Your task to perform on an android device: Look up the best selling books on Goodreads. Image 0: 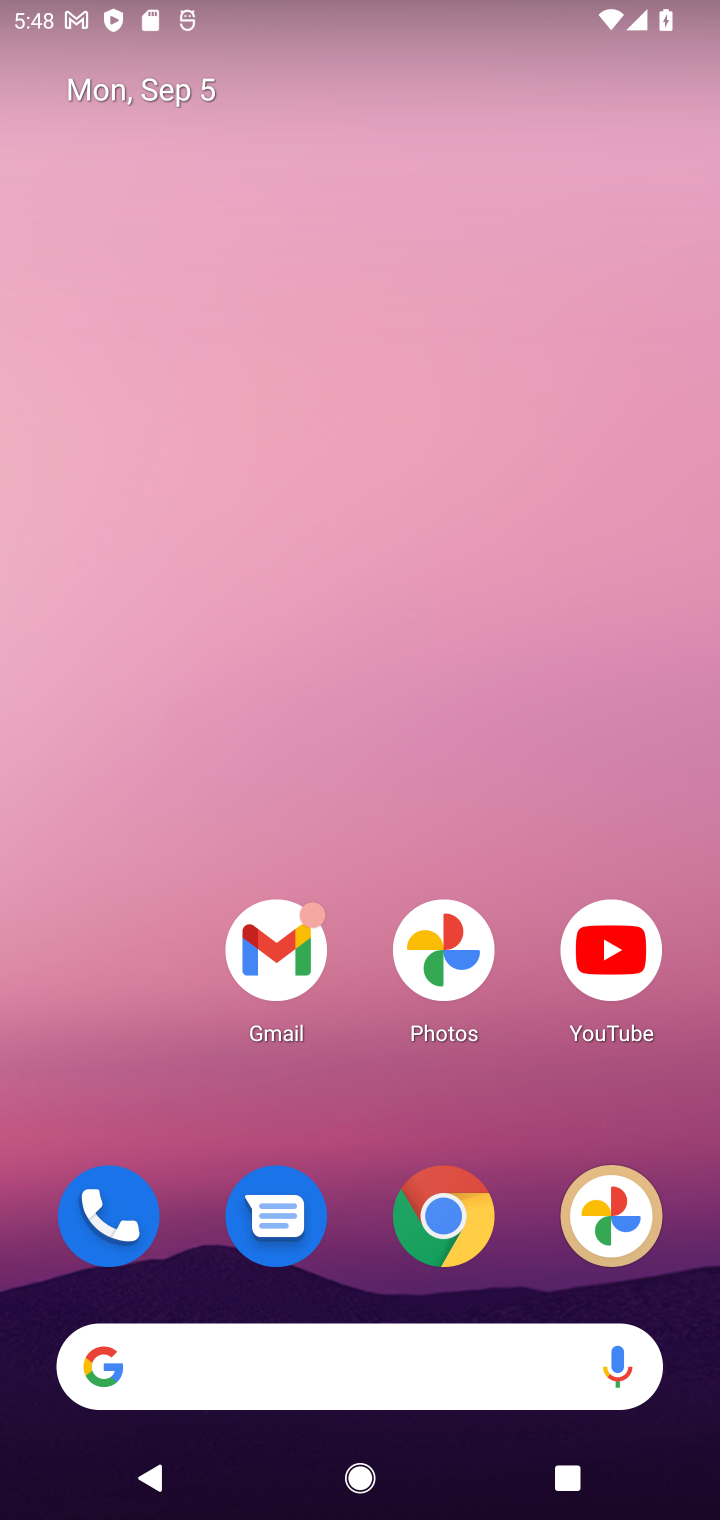
Step 0: click (435, 1217)
Your task to perform on an android device: Look up the best selling books on Goodreads. Image 1: 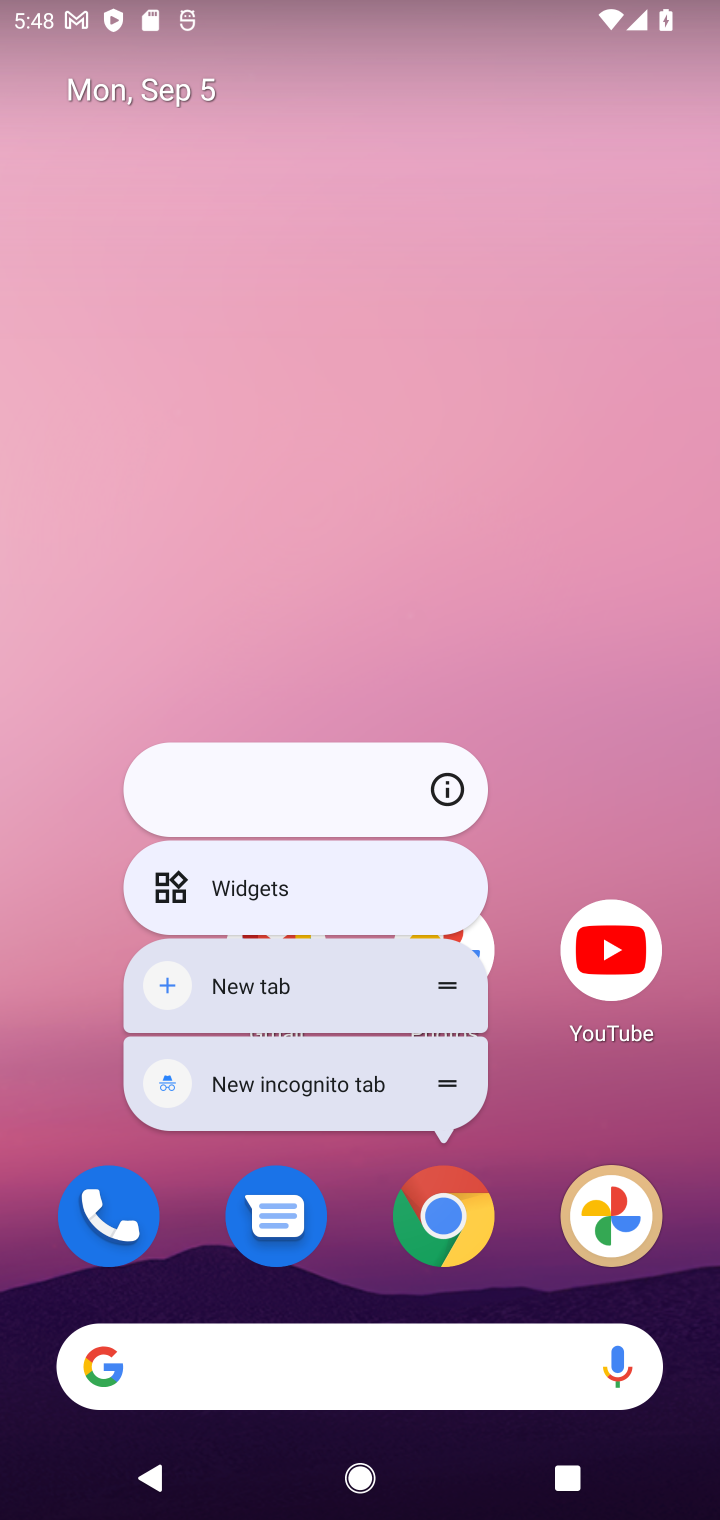
Step 1: click (435, 1217)
Your task to perform on an android device: Look up the best selling books on Goodreads. Image 2: 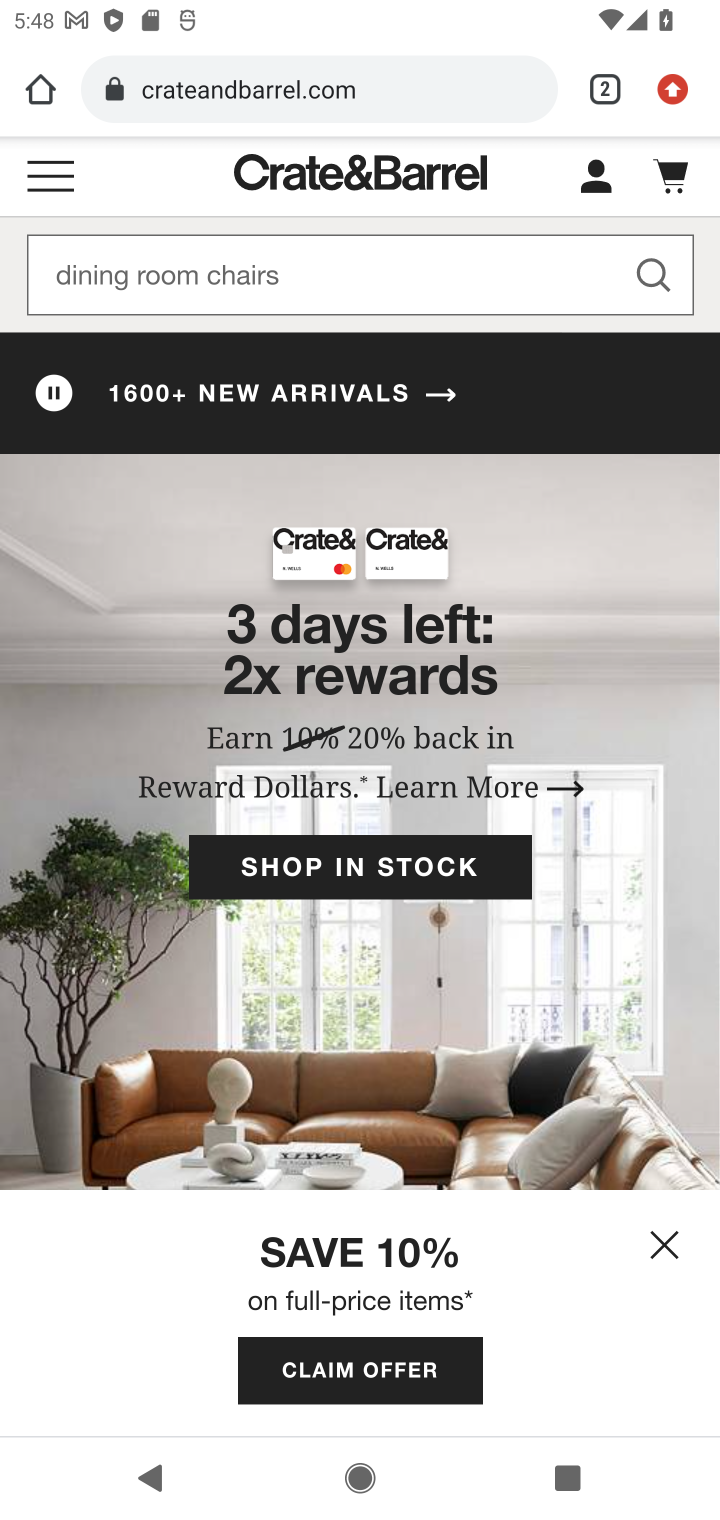
Step 2: click (289, 87)
Your task to perform on an android device: Look up the best selling books on Goodreads. Image 3: 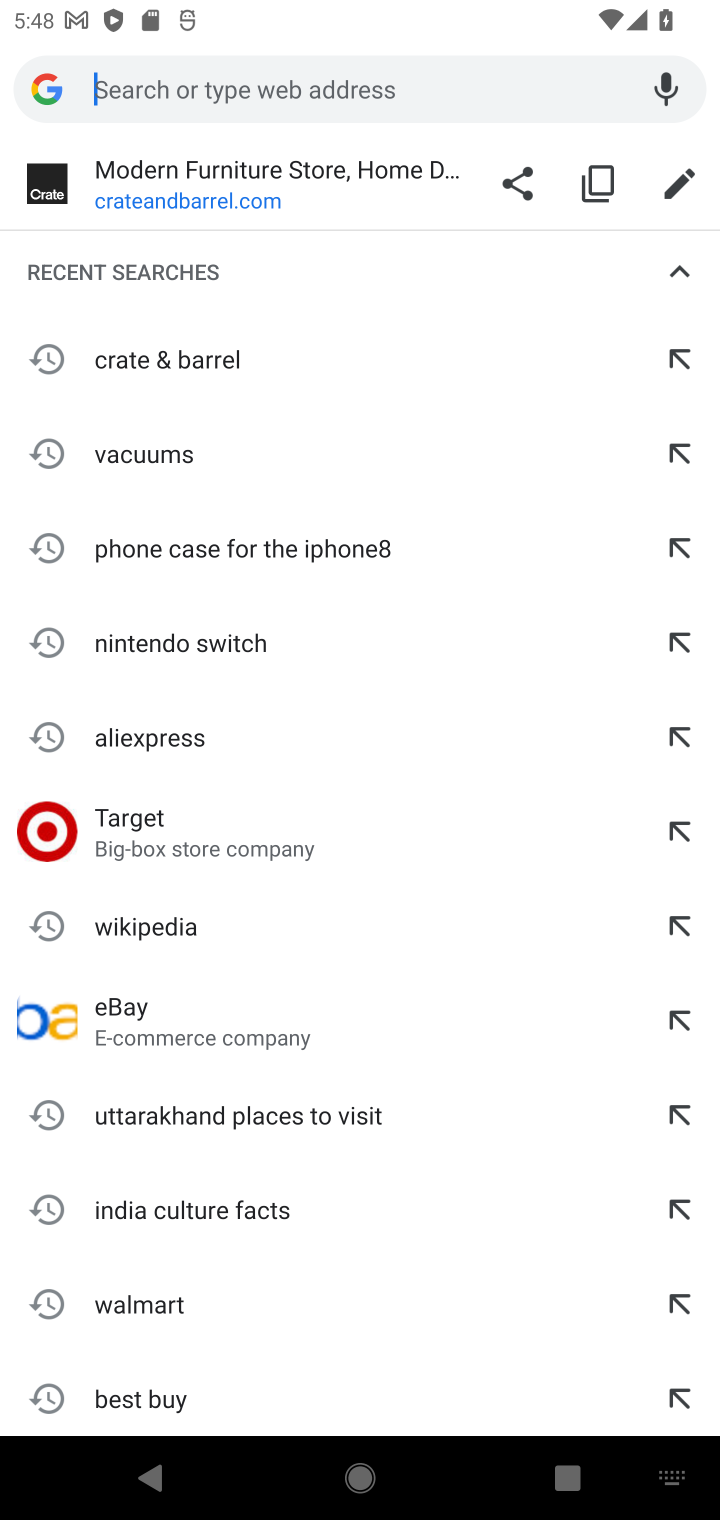
Step 3: type "goodreads"
Your task to perform on an android device: Look up the best selling books on Goodreads. Image 4: 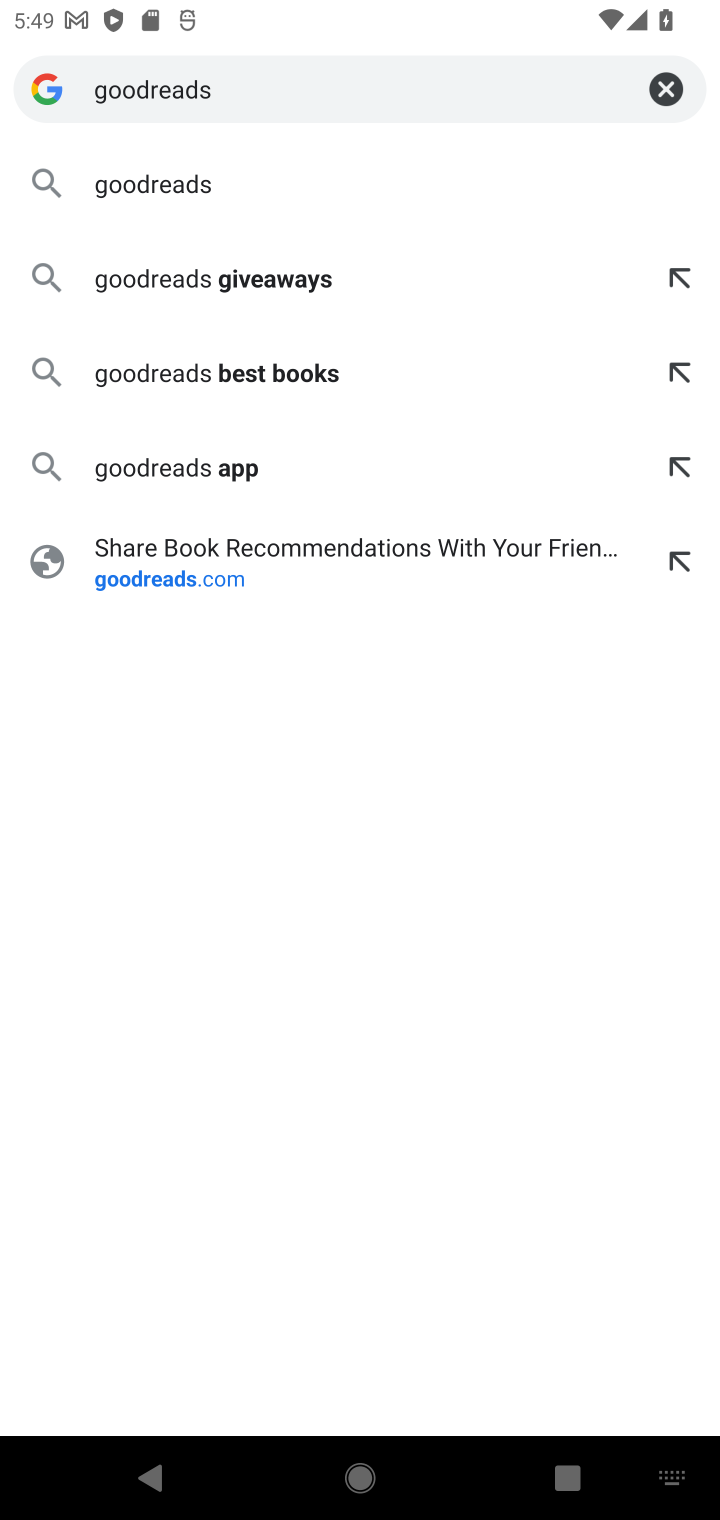
Step 4: click (229, 190)
Your task to perform on an android device: Look up the best selling books on Goodreads. Image 5: 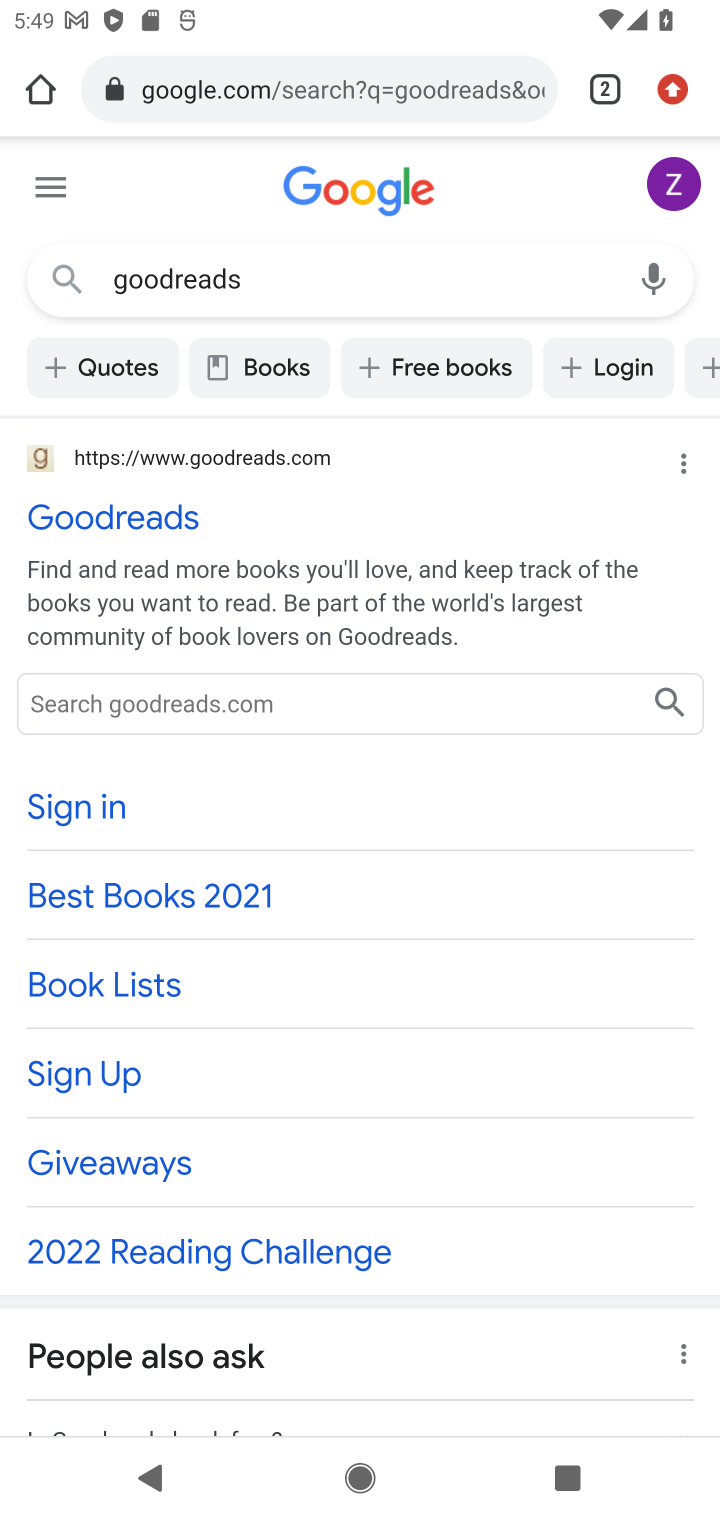
Step 5: click (133, 528)
Your task to perform on an android device: Look up the best selling books on Goodreads. Image 6: 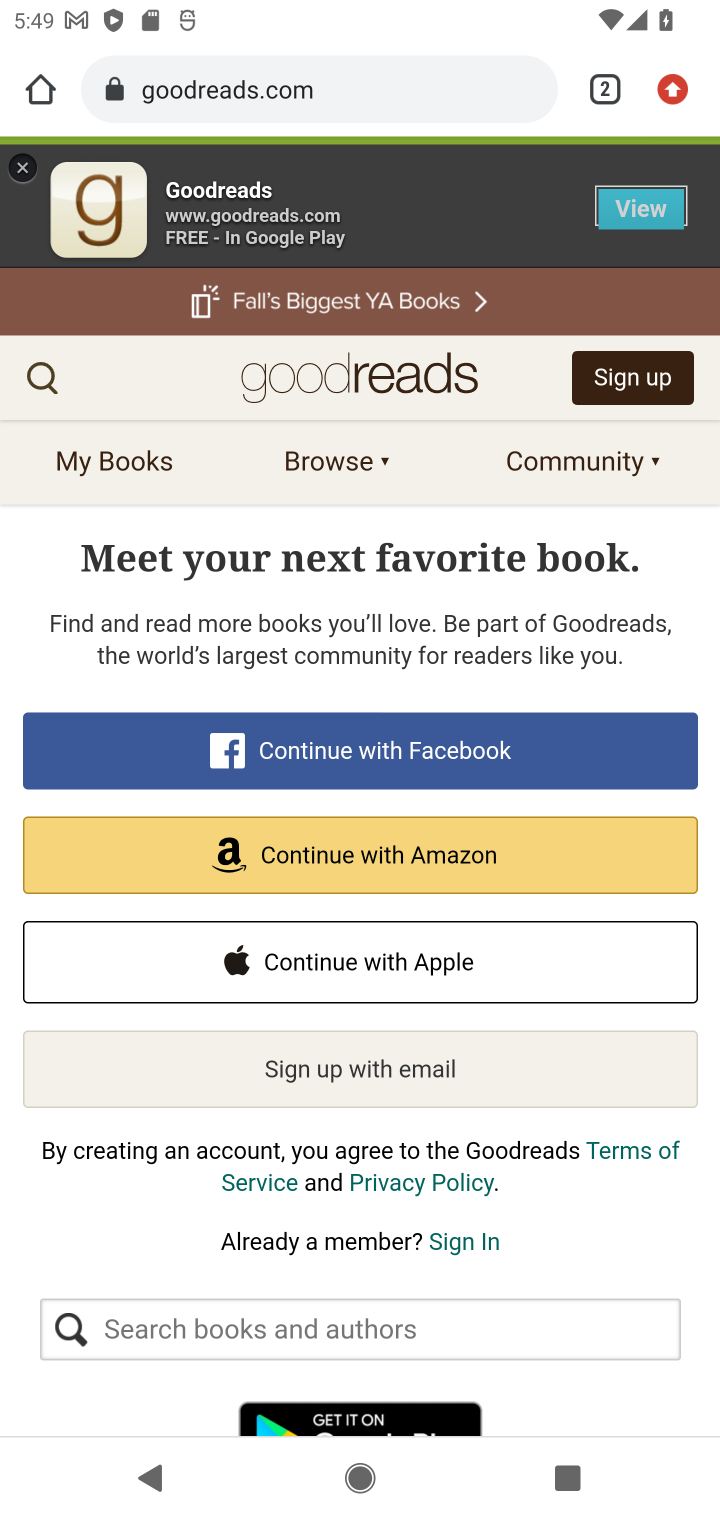
Step 6: click (435, 854)
Your task to perform on an android device: Look up the best selling books on Goodreads. Image 7: 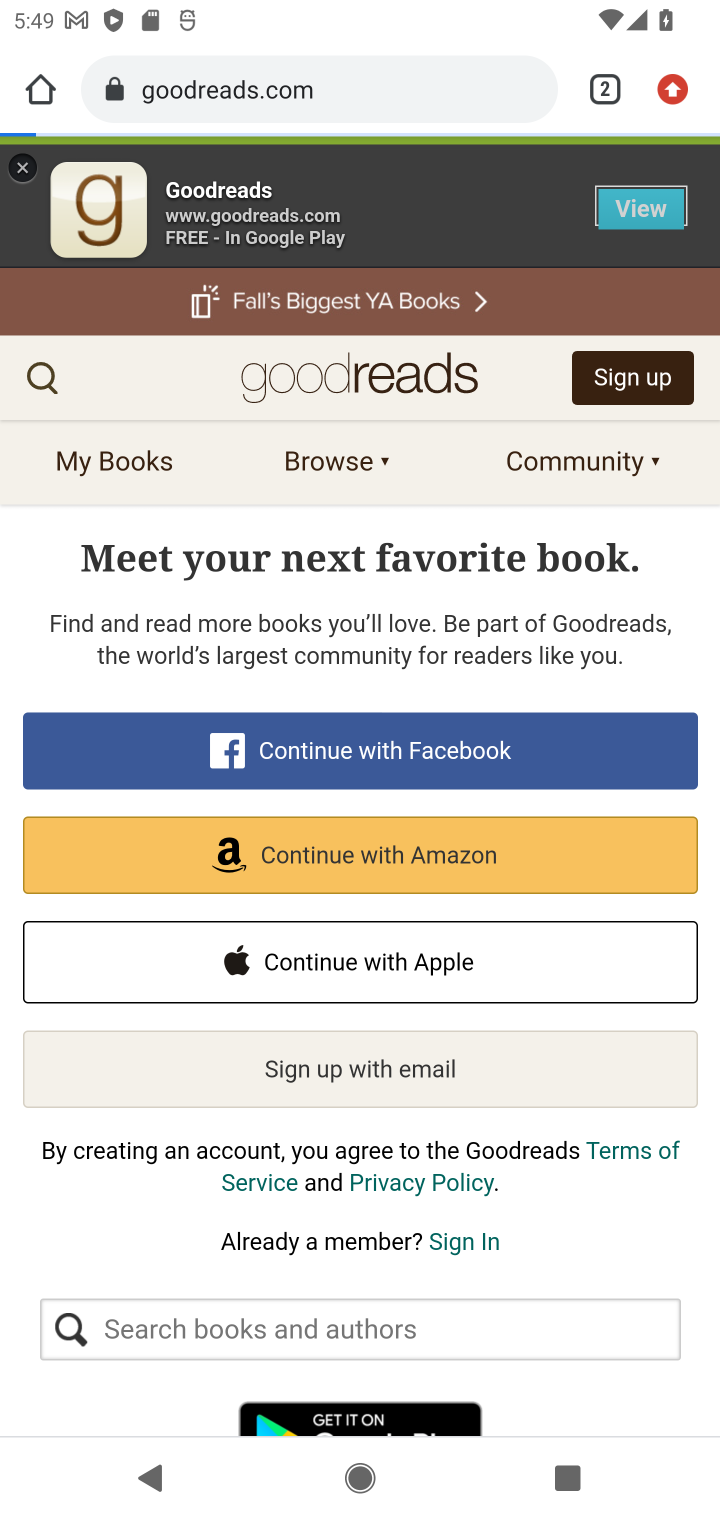
Step 7: click (40, 383)
Your task to perform on an android device: Look up the best selling books on Goodreads. Image 8: 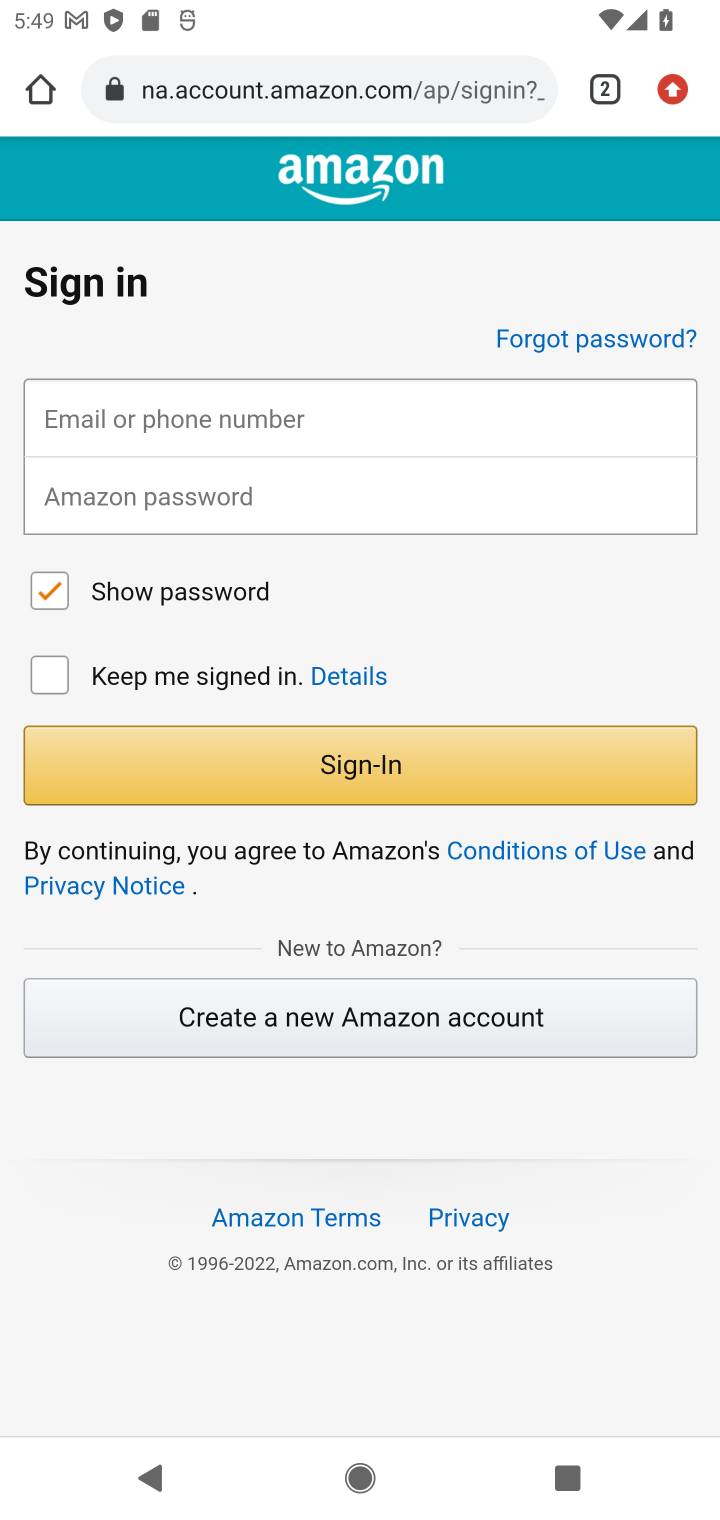
Step 8: click (328, 82)
Your task to perform on an android device: Look up the best selling books on Goodreads. Image 9: 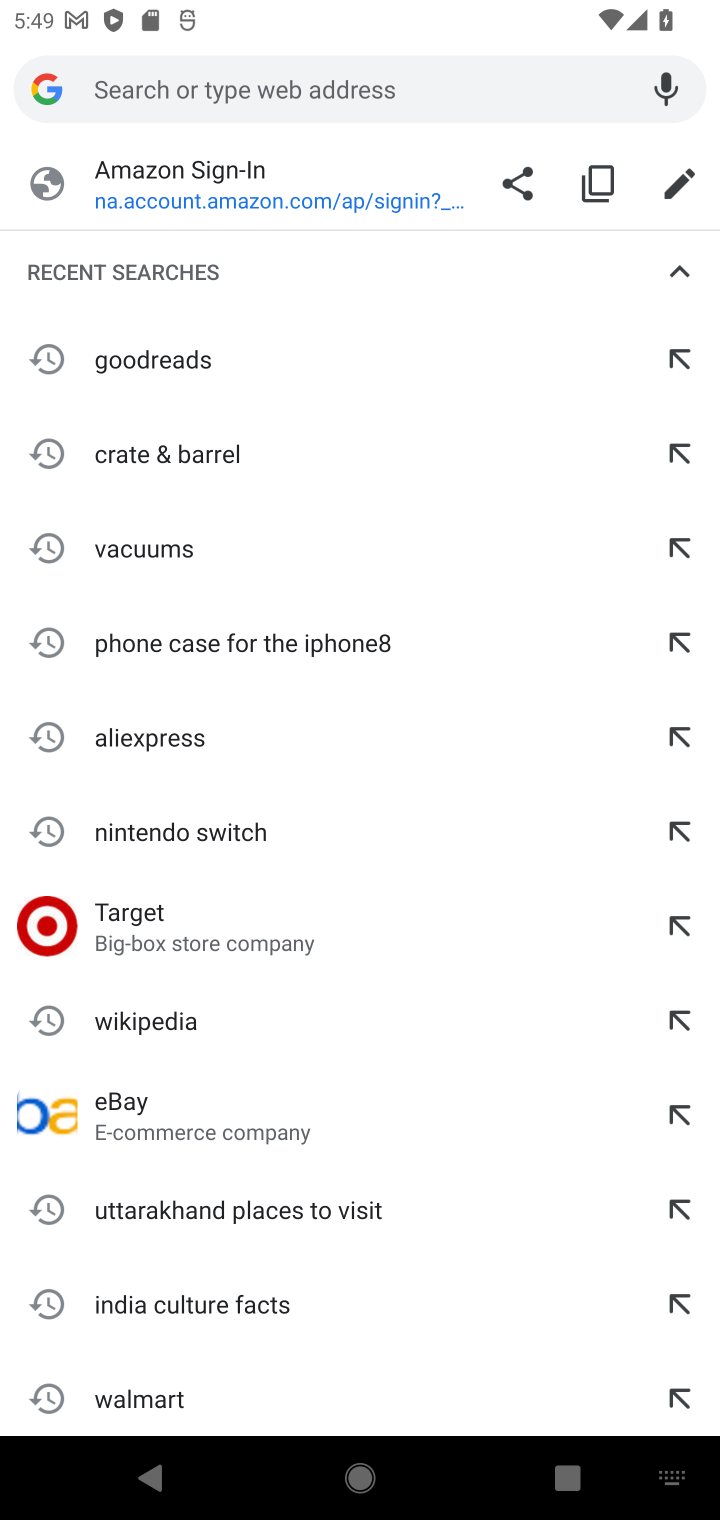
Step 9: click (233, 370)
Your task to perform on an android device: Look up the best selling books on Goodreads. Image 10: 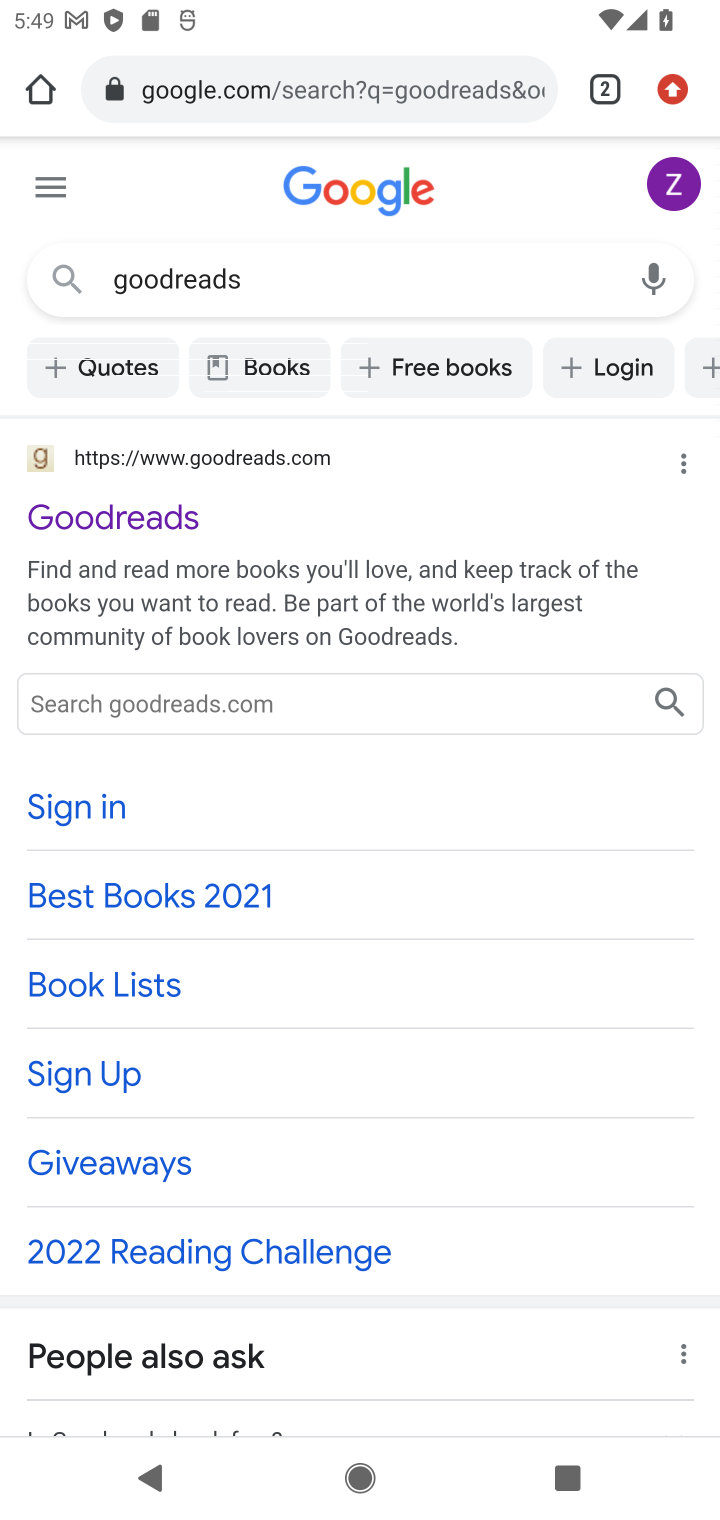
Step 10: task complete